Your task to perform on an android device: Toggle the flashlight Image 0: 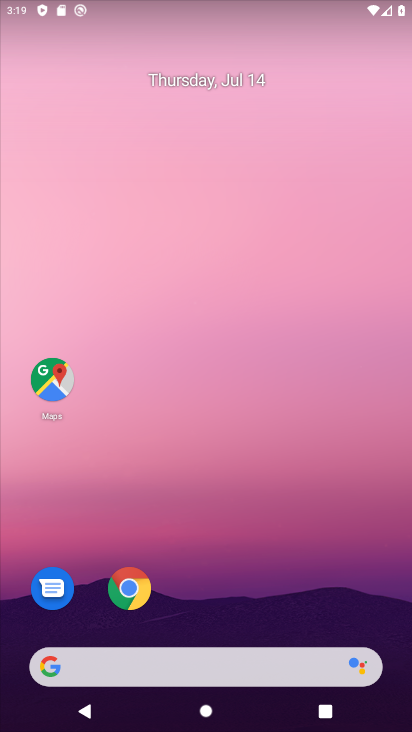
Step 0: drag from (217, 559) to (261, 2)
Your task to perform on an android device: Toggle the flashlight Image 1: 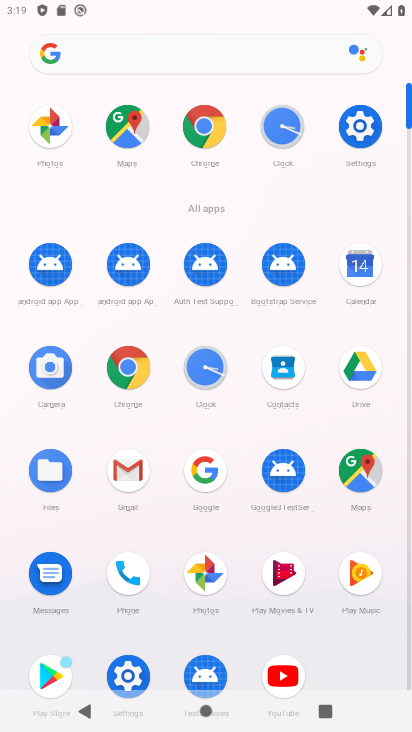
Step 1: click (360, 133)
Your task to perform on an android device: Toggle the flashlight Image 2: 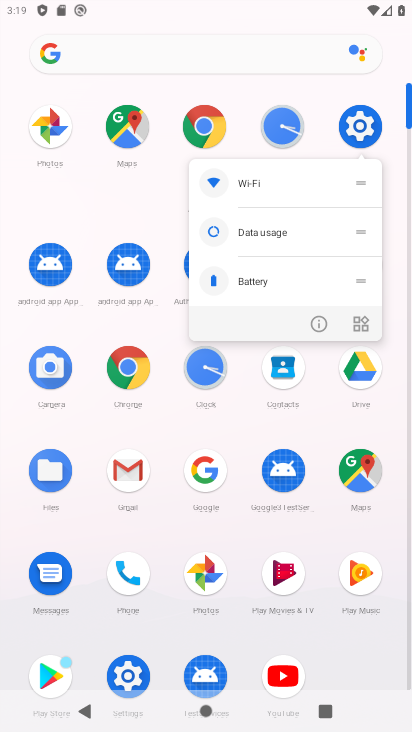
Step 2: click (360, 133)
Your task to perform on an android device: Toggle the flashlight Image 3: 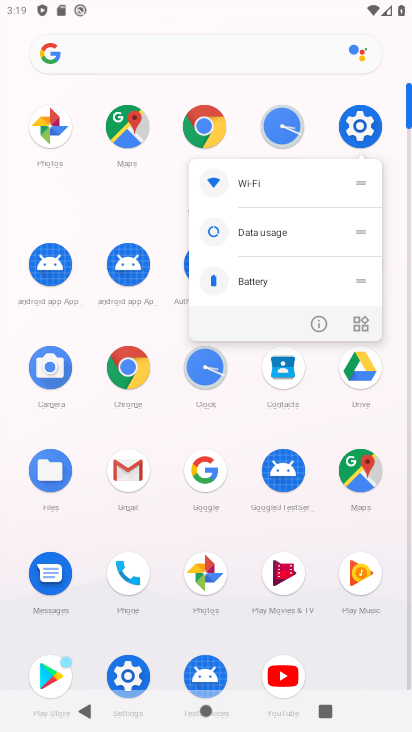
Step 3: click (361, 126)
Your task to perform on an android device: Toggle the flashlight Image 4: 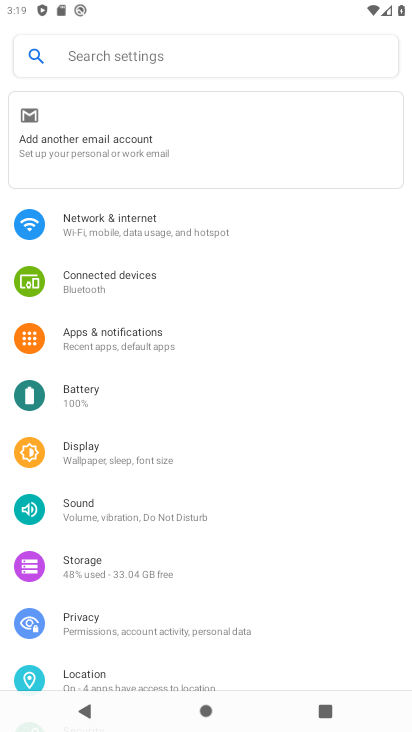
Step 4: task complete